Your task to perform on an android device: Open sound settings Image 0: 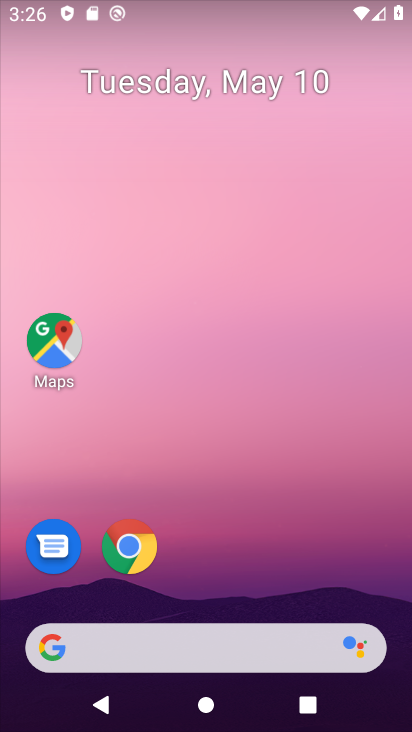
Step 0: drag from (213, 614) to (324, 76)
Your task to perform on an android device: Open sound settings Image 1: 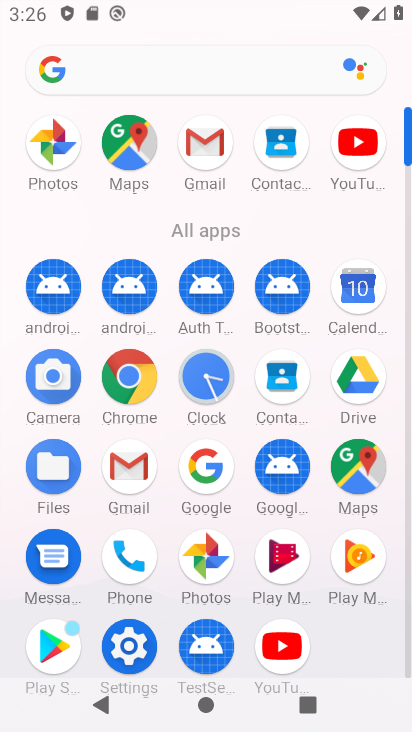
Step 1: click (132, 644)
Your task to perform on an android device: Open sound settings Image 2: 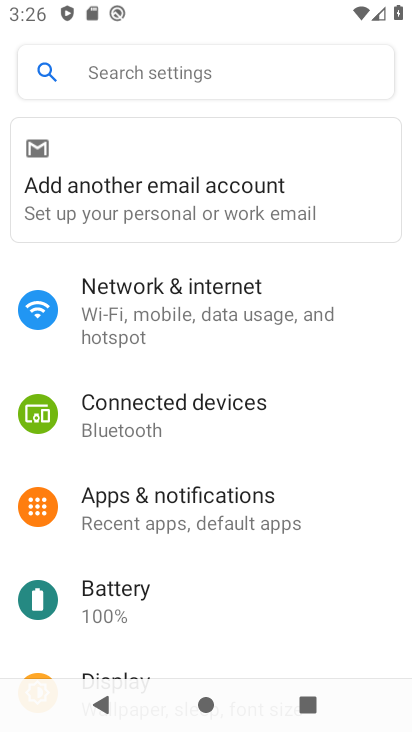
Step 2: drag from (154, 606) to (232, 282)
Your task to perform on an android device: Open sound settings Image 3: 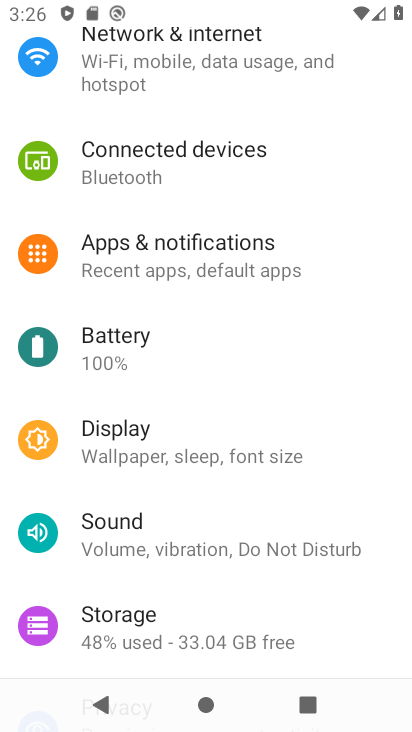
Step 3: click (137, 525)
Your task to perform on an android device: Open sound settings Image 4: 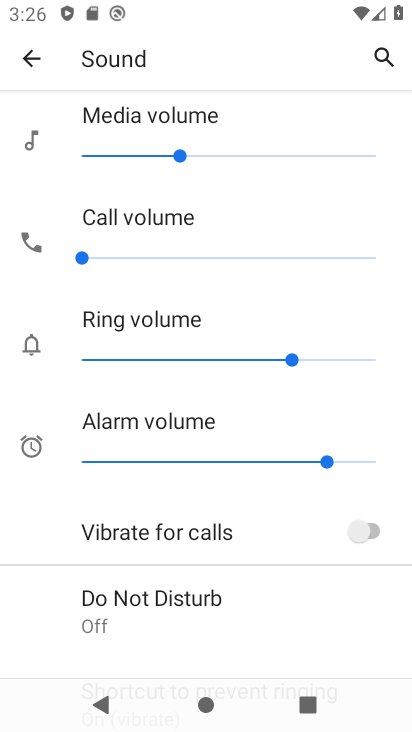
Step 4: task complete